Your task to perform on an android device: toggle priority inbox in the gmail app Image 0: 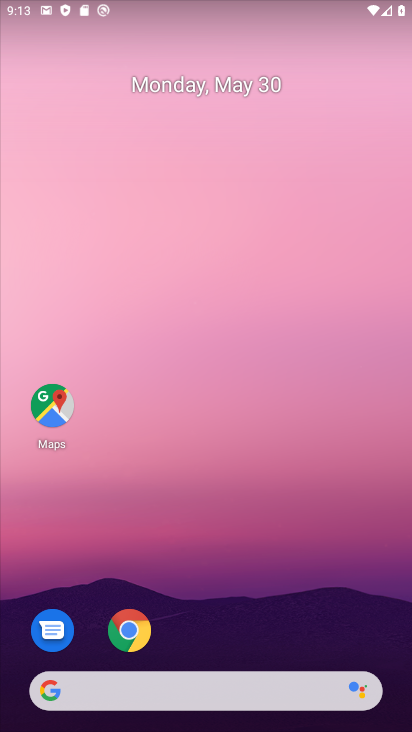
Step 0: drag from (315, 644) to (30, 133)
Your task to perform on an android device: toggle priority inbox in the gmail app Image 1: 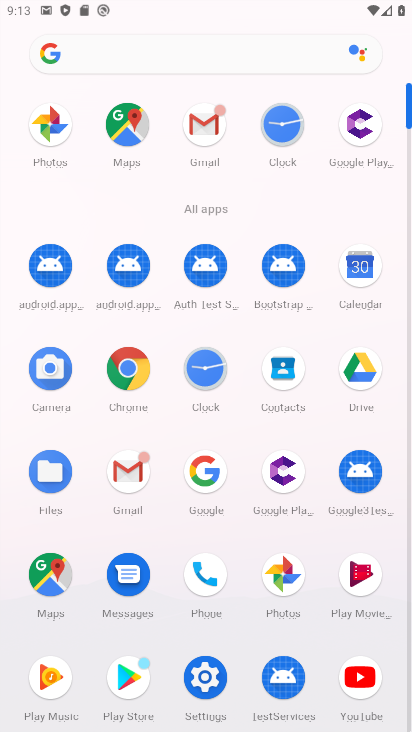
Step 1: click (192, 174)
Your task to perform on an android device: toggle priority inbox in the gmail app Image 2: 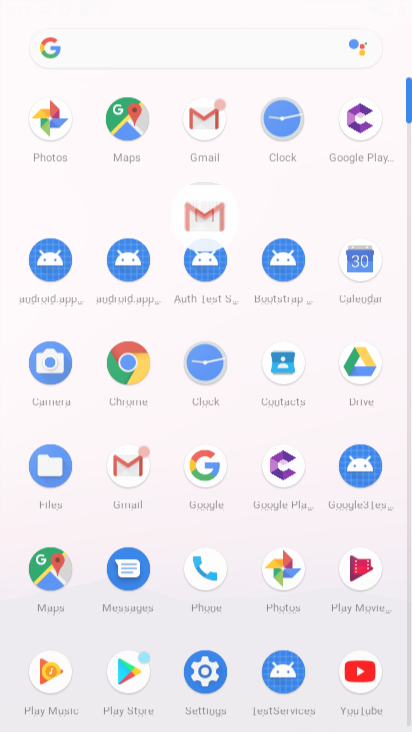
Step 2: click (200, 163)
Your task to perform on an android device: toggle priority inbox in the gmail app Image 3: 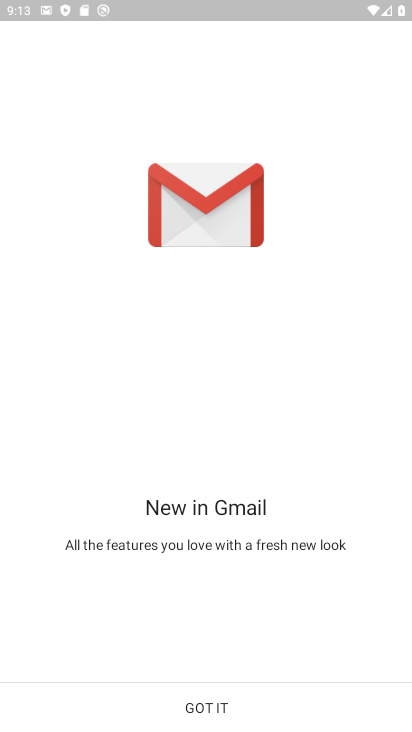
Step 3: click (208, 697)
Your task to perform on an android device: toggle priority inbox in the gmail app Image 4: 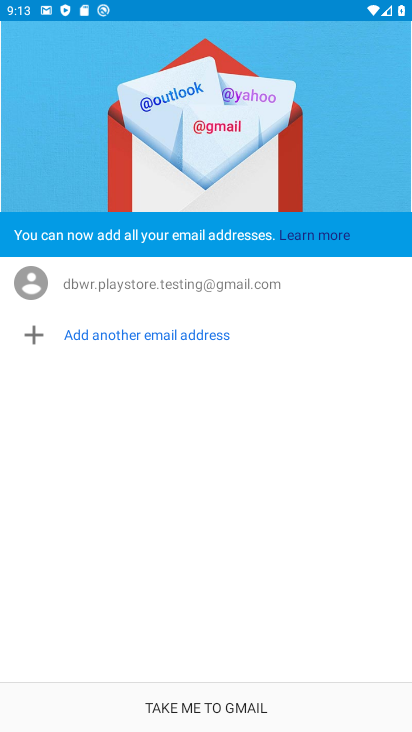
Step 4: click (208, 697)
Your task to perform on an android device: toggle priority inbox in the gmail app Image 5: 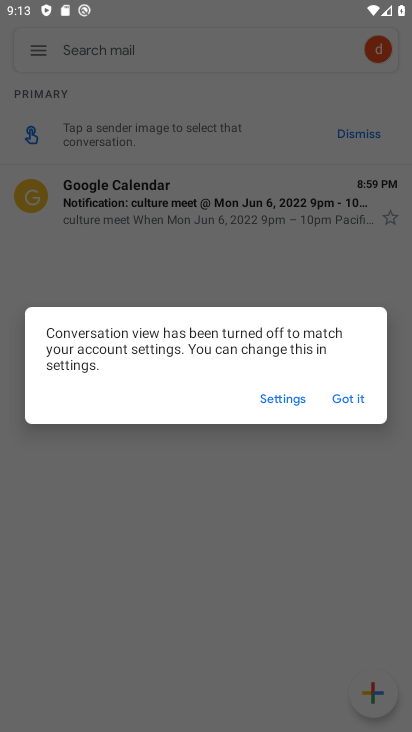
Step 5: click (334, 399)
Your task to perform on an android device: toggle priority inbox in the gmail app Image 6: 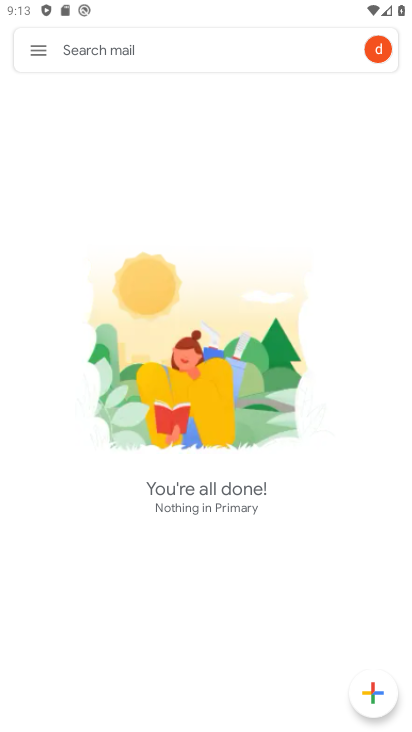
Step 6: task complete